Your task to perform on an android device: add a label to a message in the gmail app Image 0: 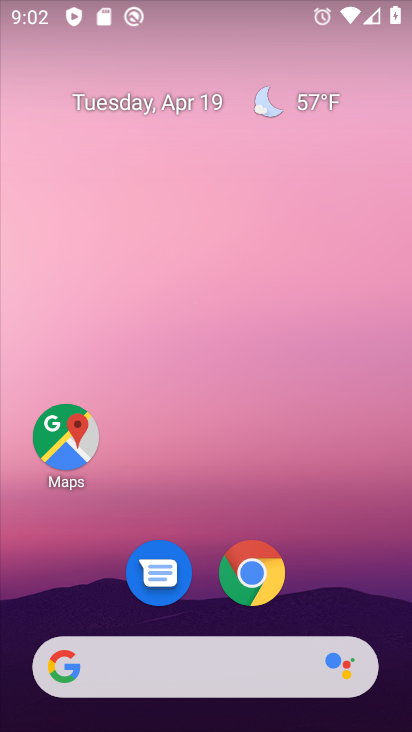
Step 0: drag from (316, 511) to (291, 111)
Your task to perform on an android device: add a label to a message in the gmail app Image 1: 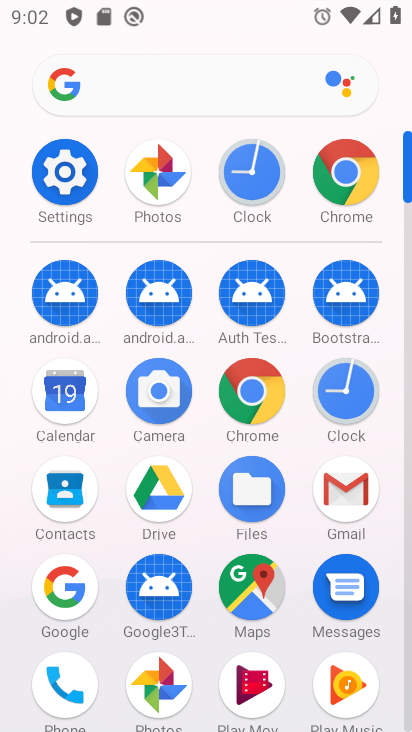
Step 1: click (339, 497)
Your task to perform on an android device: add a label to a message in the gmail app Image 2: 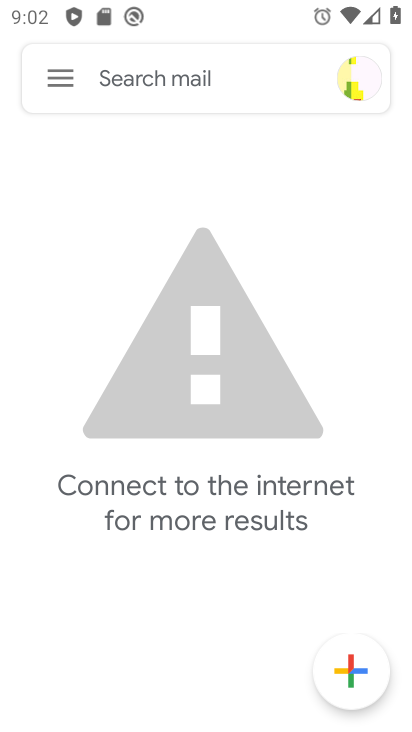
Step 2: click (61, 80)
Your task to perform on an android device: add a label to a message in the gmail app Image 3: 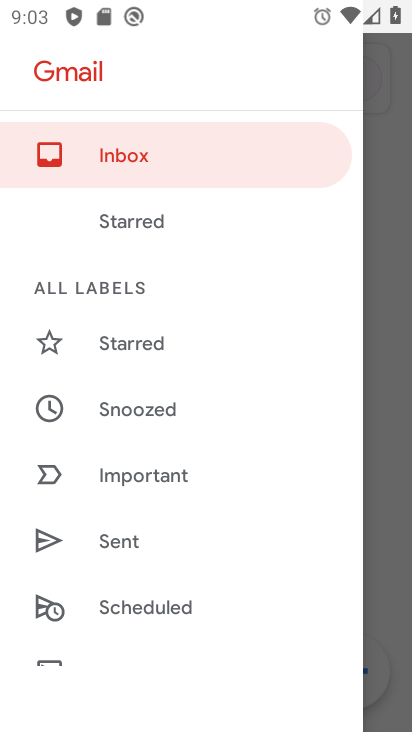
Step 3: drag from (216, 578) to (171, 143)
Your task to perform on an android device: add a label to a message in the gmail app Image 4: 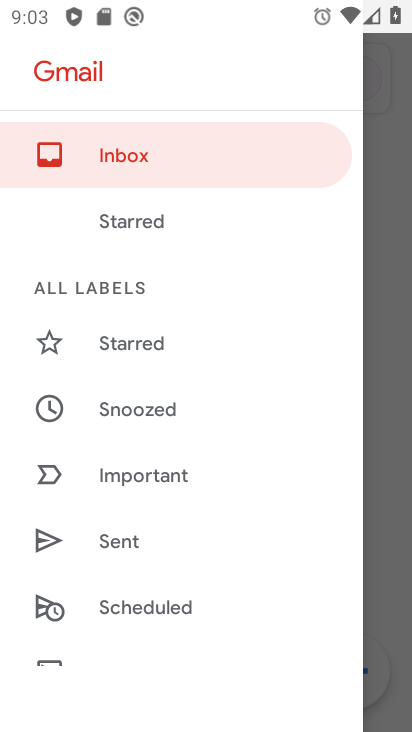
Step 4: drag from (108, 575) to (110, 132)
Your task to perform on an android device: add a label to a message in the gmail app Image 5: 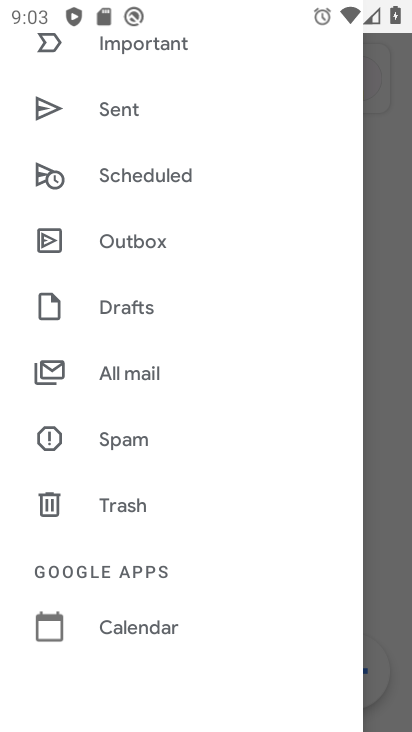
Step 5: click (113, 366)
Your task to perform on an android device: add a label to a message in the gmail app Image 6: 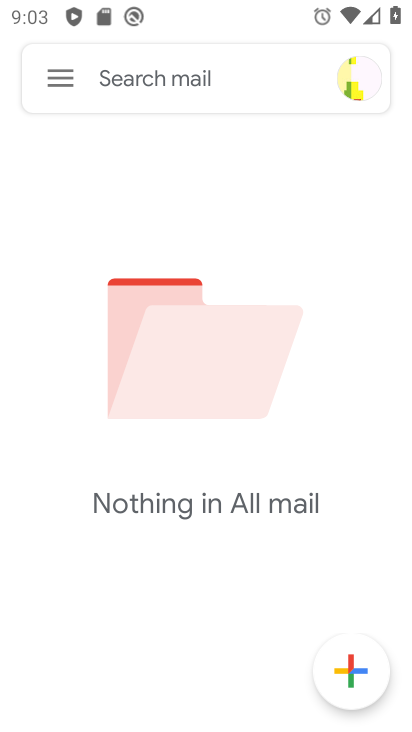
Step 6: drag from (193, 184) to (217, 623)
Your task to perform on an android device: add a label to a message in the gmail app Image 7: 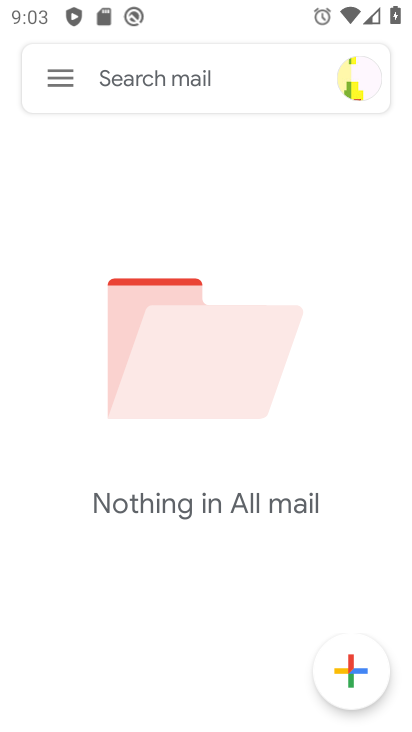
Step 7: click (65, 72)
Your task to perform on an android device: add a label to a message in the gmail app Image 8: 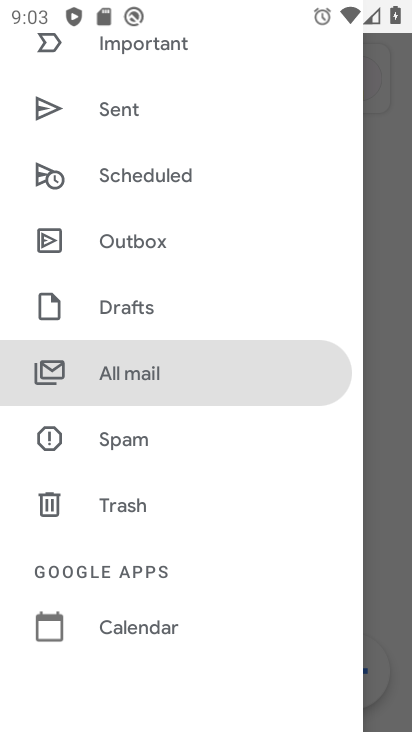
Step 8: click (134, 300)
Your task to perform on an android device: add a label to a message in the gmail app Image 9: 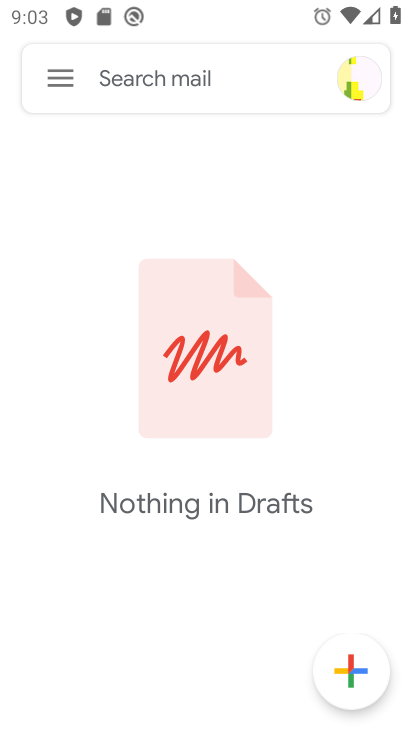
Step 9: click (63, 73)
Your task to perform on an android device: add a label to a message in the gmail app Image 10: 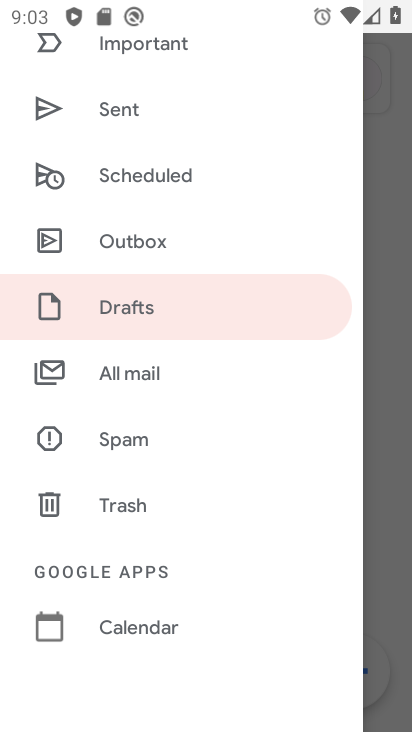
Step 10: drag from (157, 123) to (158, 502)
Your task to perform on an android device: add a label to a message in the gmail app Image 11: 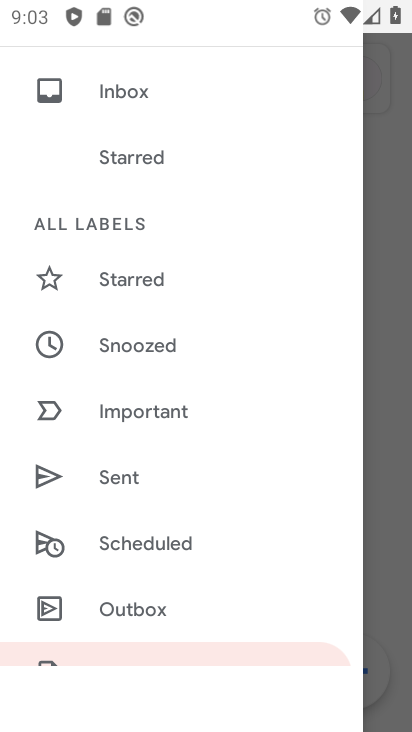
Step 11: click (112, 97)
Your task to perform on an android device: add a label to a message in the gmail app Image 12: 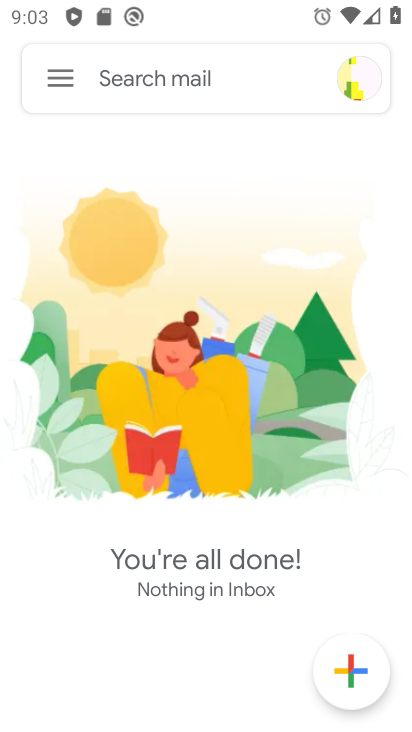
Step 12: task complete